Your task to perform on an android device: read, delete, or share a saved page in the chrome app Image 0: 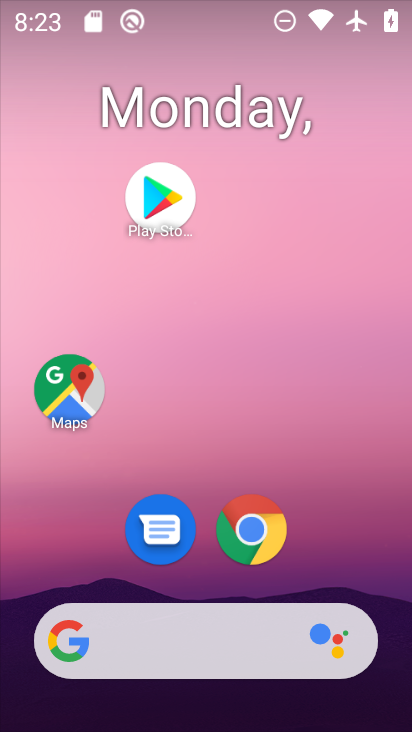
Step 0: click (246, 514)
Your task to perform on an android device: read, delete, or share a saved page in the chrome app Image 1: 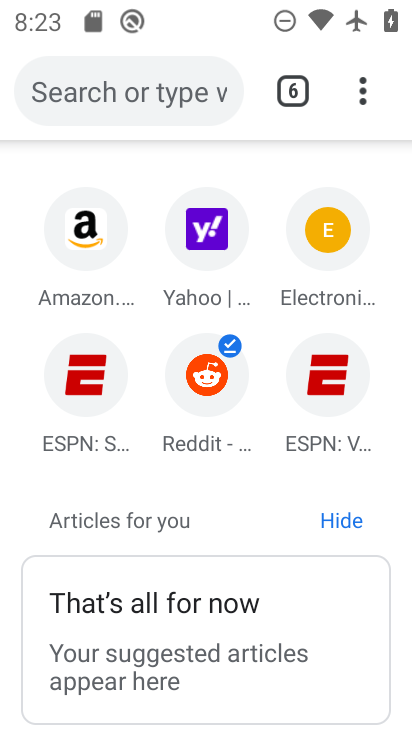
Step 1: click (364, 86)
Your task to perform on an android device: read, delete, or share a saved page in the chrome app Image 2: 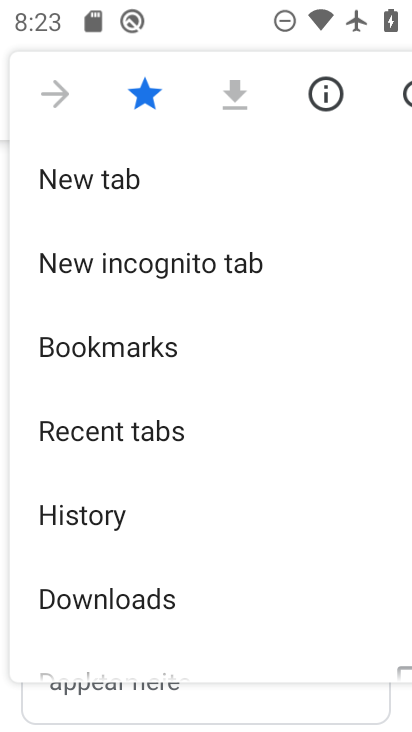
Step 2: click (114, 602)
Your task to perform on an android device: read, delete, or share a saved page in the chrome app Image 3: 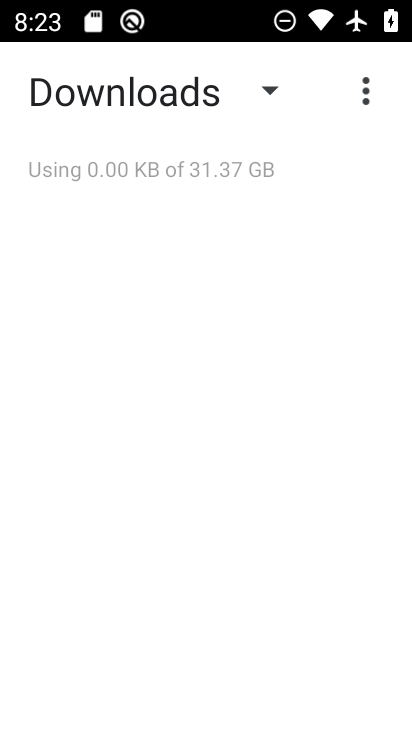
Step 3: task complete